Your task to perform on an android device: See recent photos Image 0: 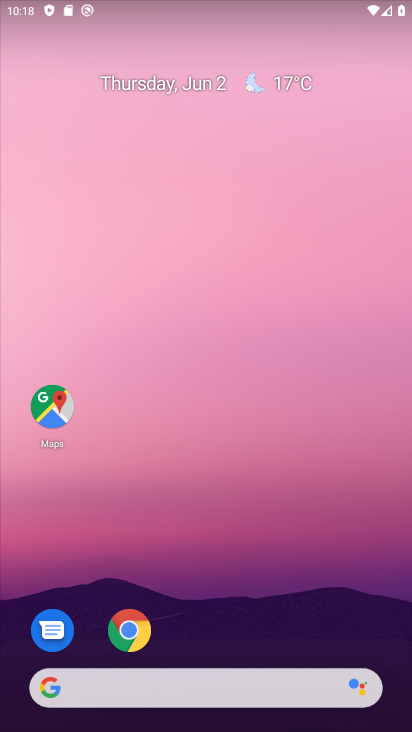
Step 0: drag from (181, 686) to (354, 137)
Your task to perform on an android device: See recent photos Image 1: 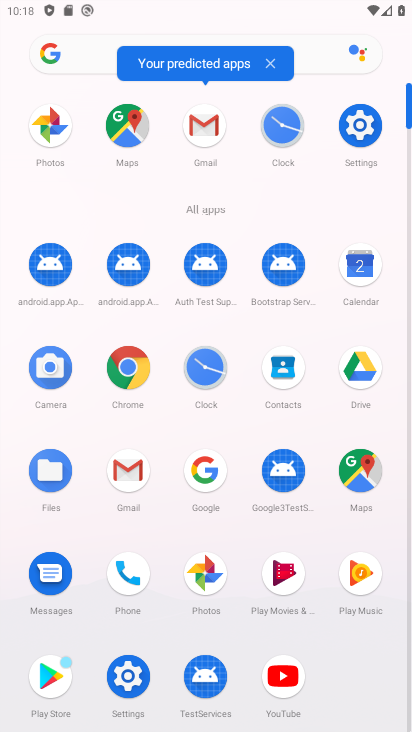
Step 1: click (205, 580)
Your task to perform on an android device: See recent photos Image 2: 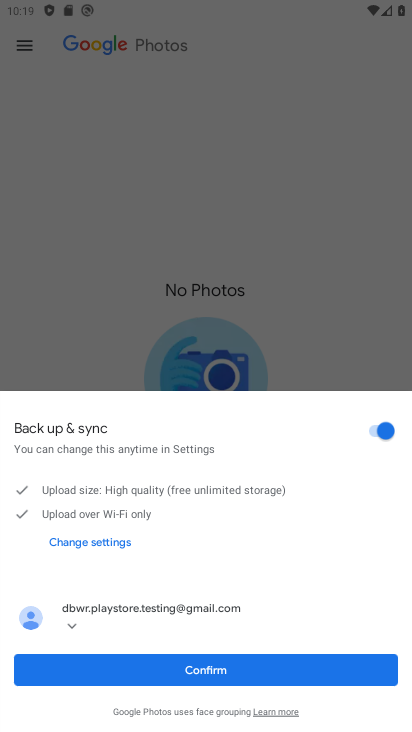
Step 2: click (190, 675)
Your task to perform on an android device: See recent photos Image 3: 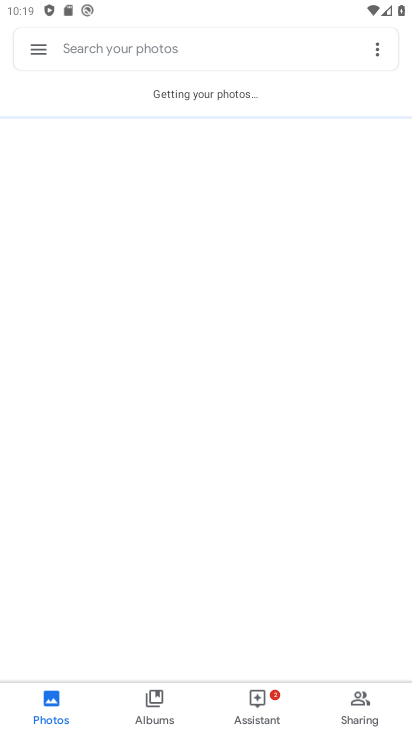
Step 3: click (249, 702)
Your task to perform on an android device: See recent photos Image 4: 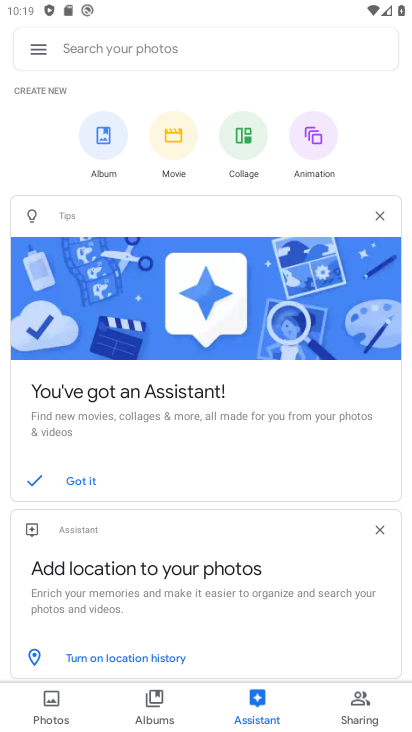
Step 4: click (145, 714)
Your task to perform on an android device: See recent photos Image 5: 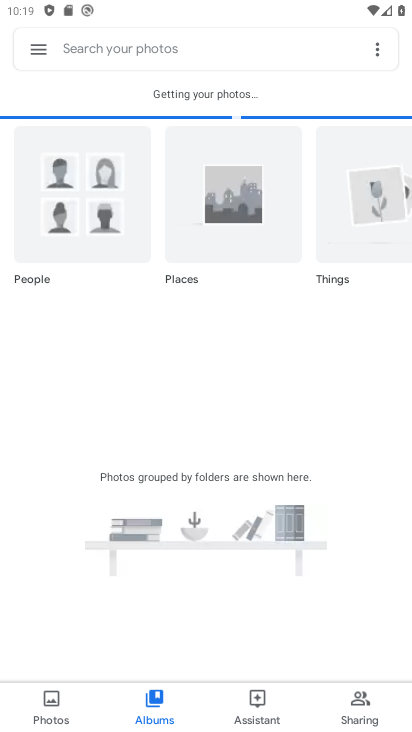
Step 5: task complete